Your task to perform on an android device: open chrome privacy settings Image 0: 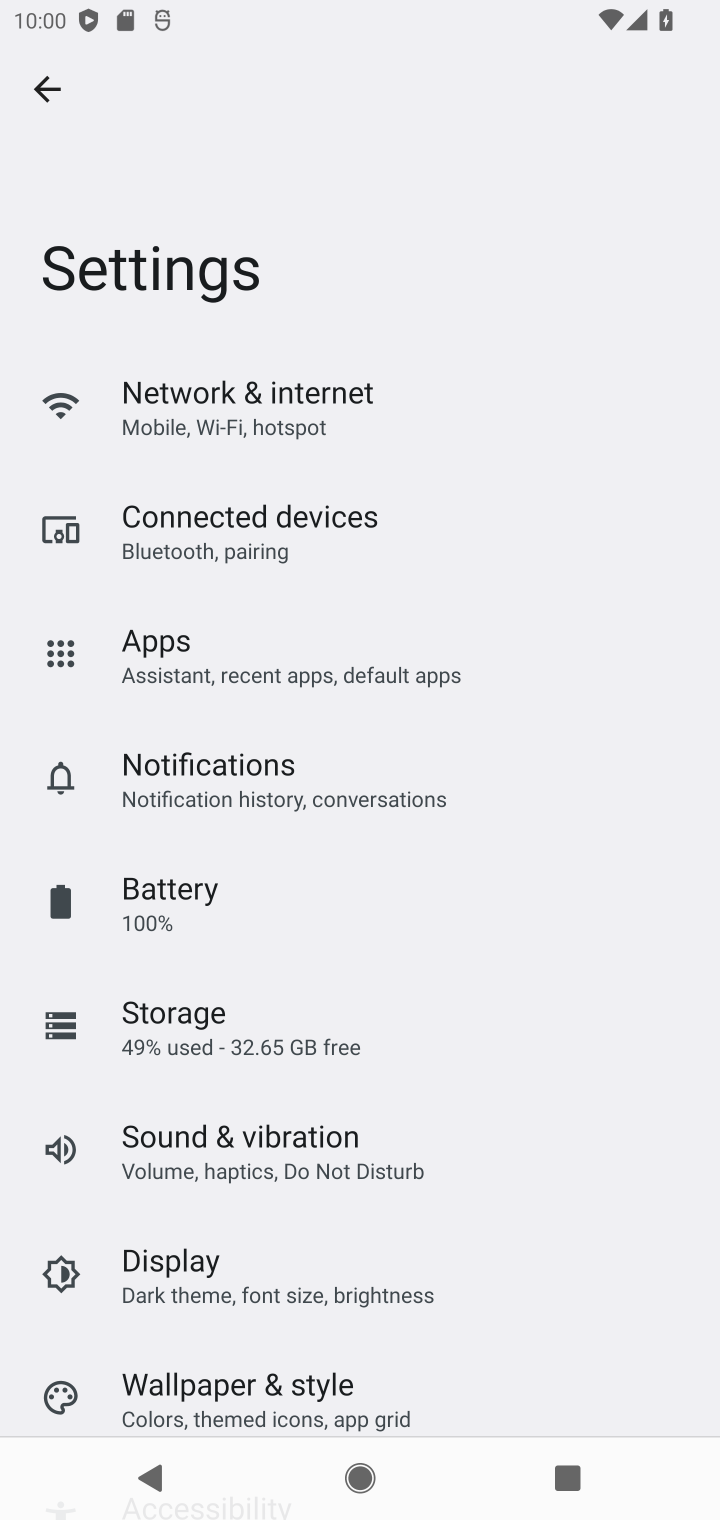
Step 0: press home button
Your task to perform on an android device: open chrome privacy settings Image 1: 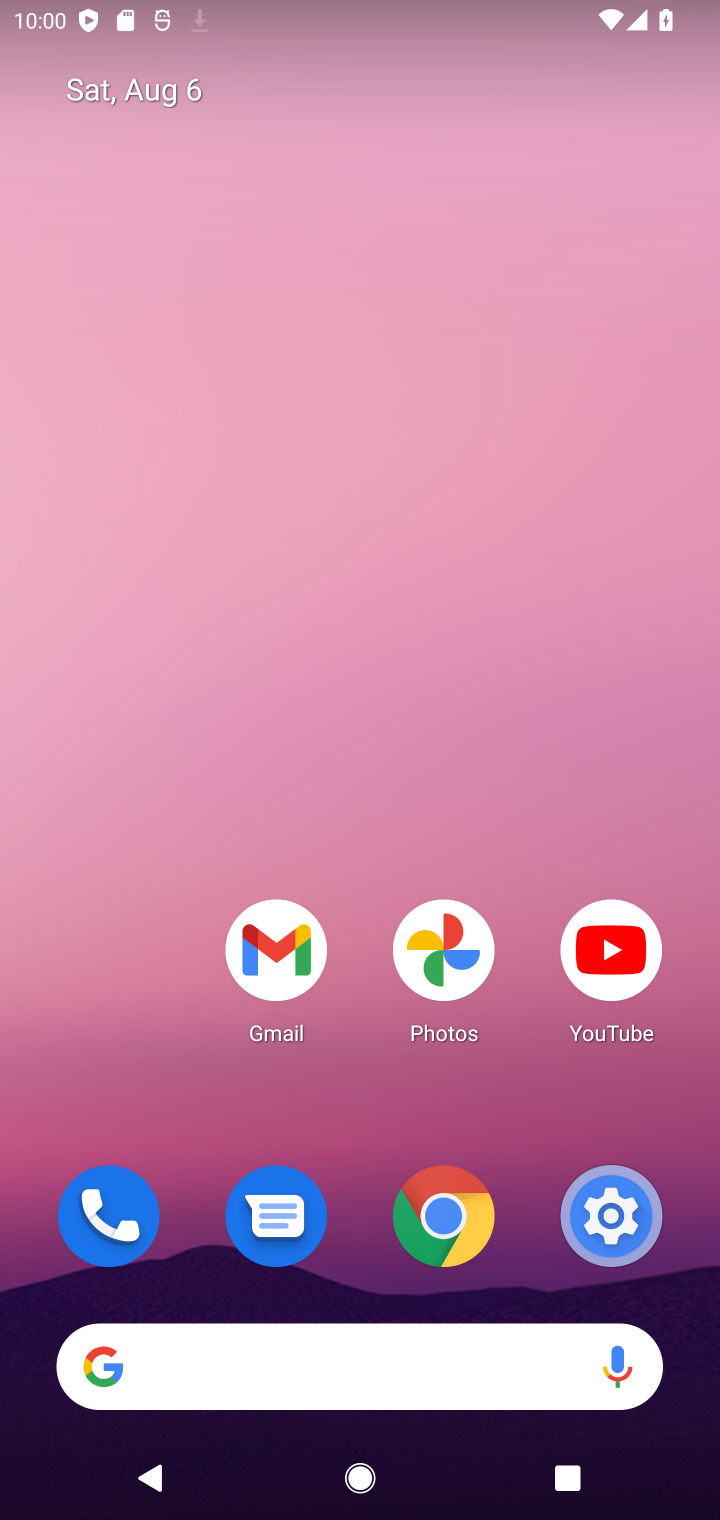
Step 1: click (418, 1257)
Your task to perform on an android device: open chrome privacy settings Image 2: 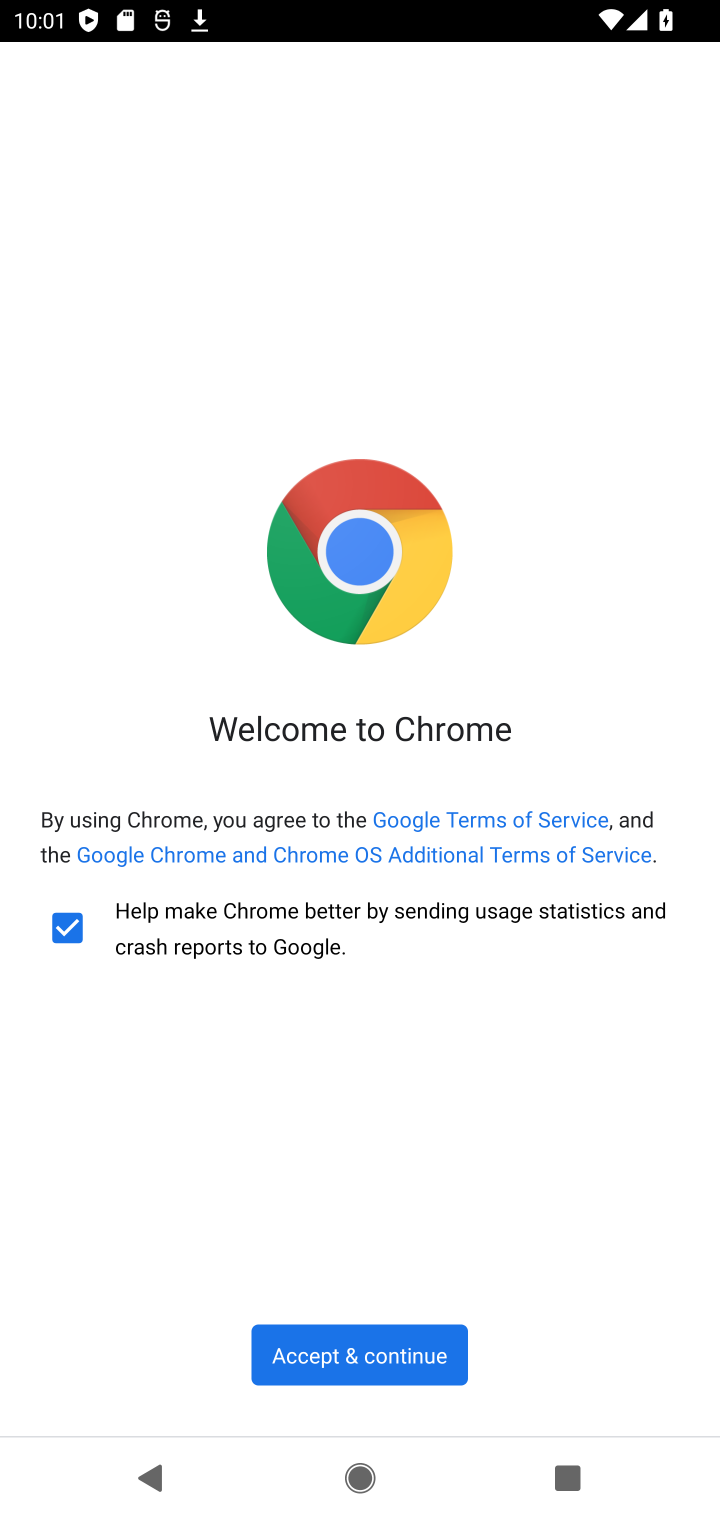
Step 2: click (353, 1351)
Your task to perform on an android device: open chrome privacy settings Image 3: 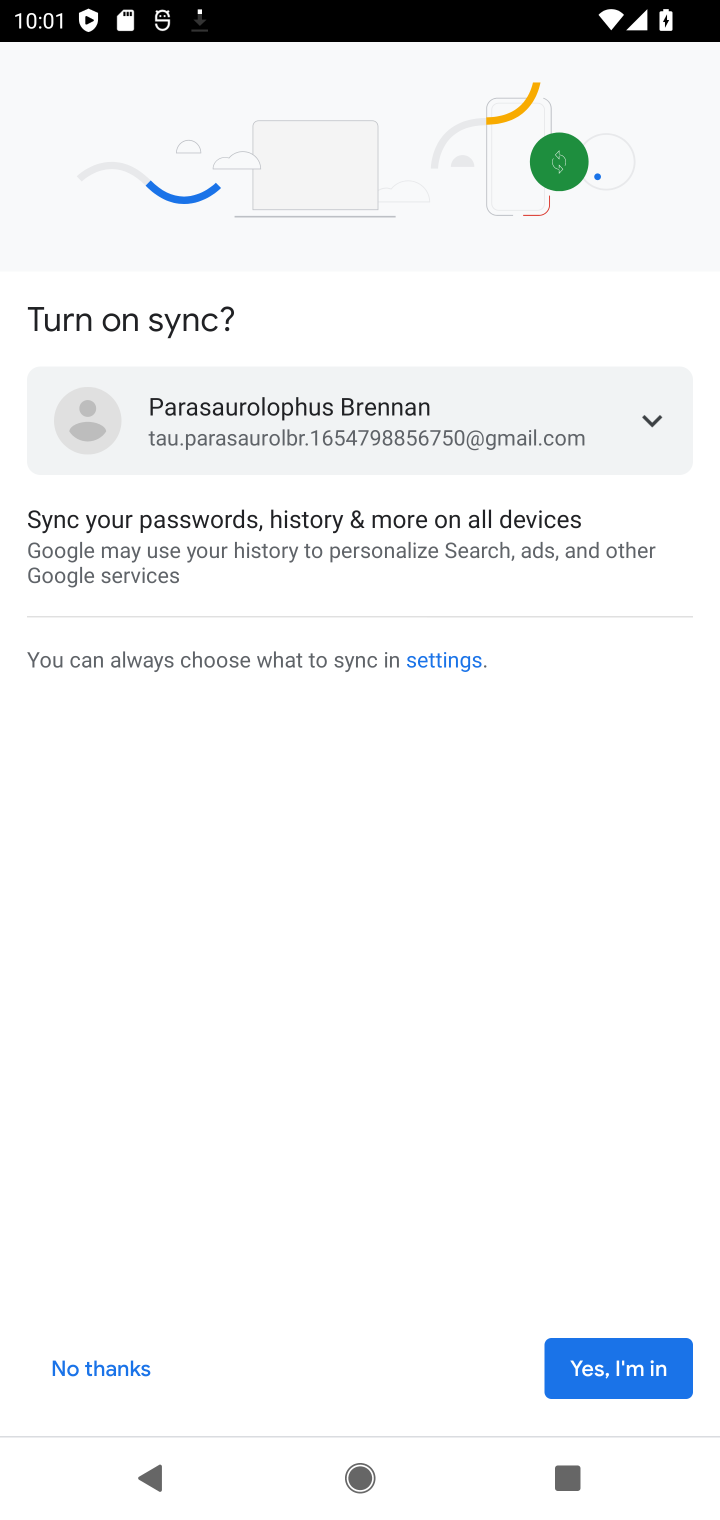
Step 3: click (596, 1373)
Your task to perform on an android device: open chrome privacy settings Image 4: 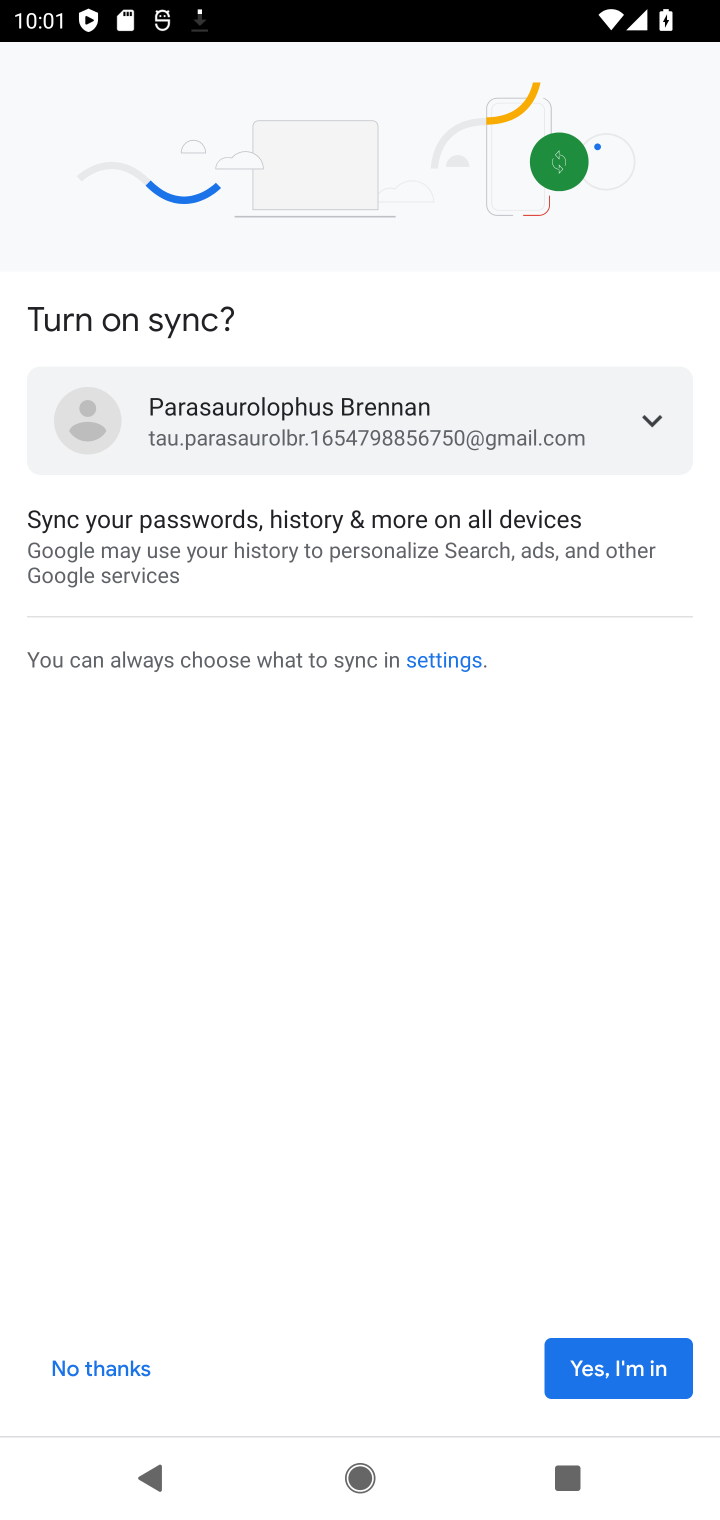
Step 4: click (596, 1373)
Your task to perform on an android device: open chrome privacy settings Image 5: 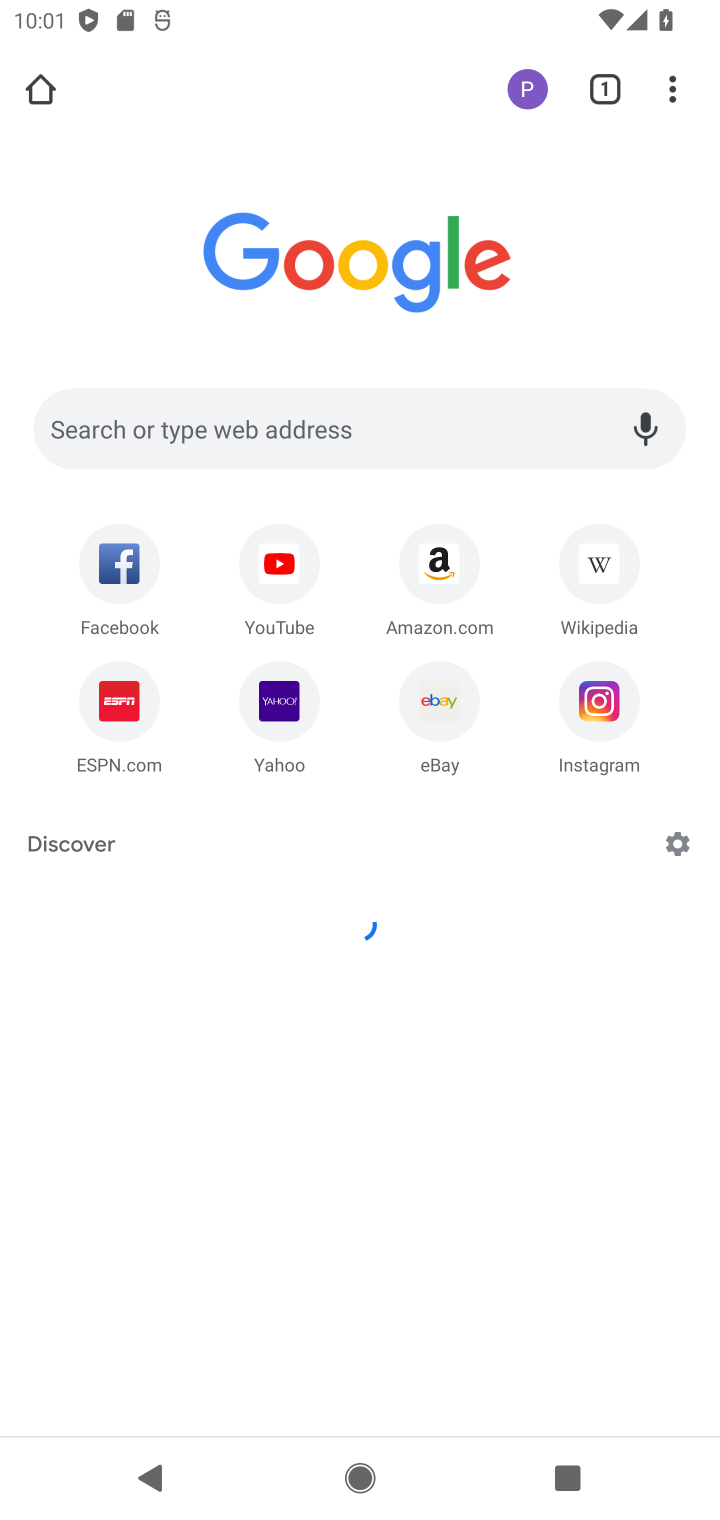
Step 5: click (658, 96)
Your task to perform on an android device: open chrome privacy settings Image 6: 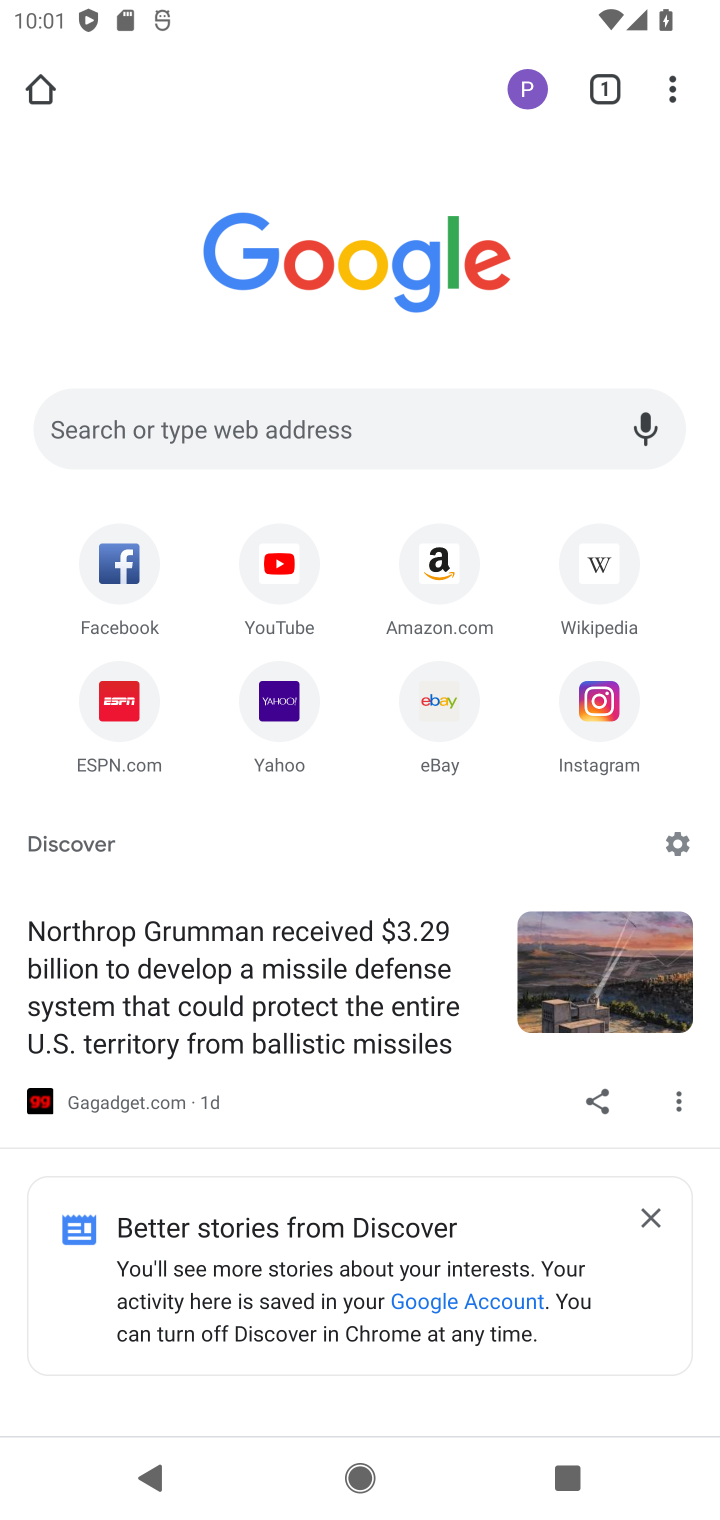
Step 6: click (673, 87)
Your task to perform on an android device: open chrome privacy settings Image 7: 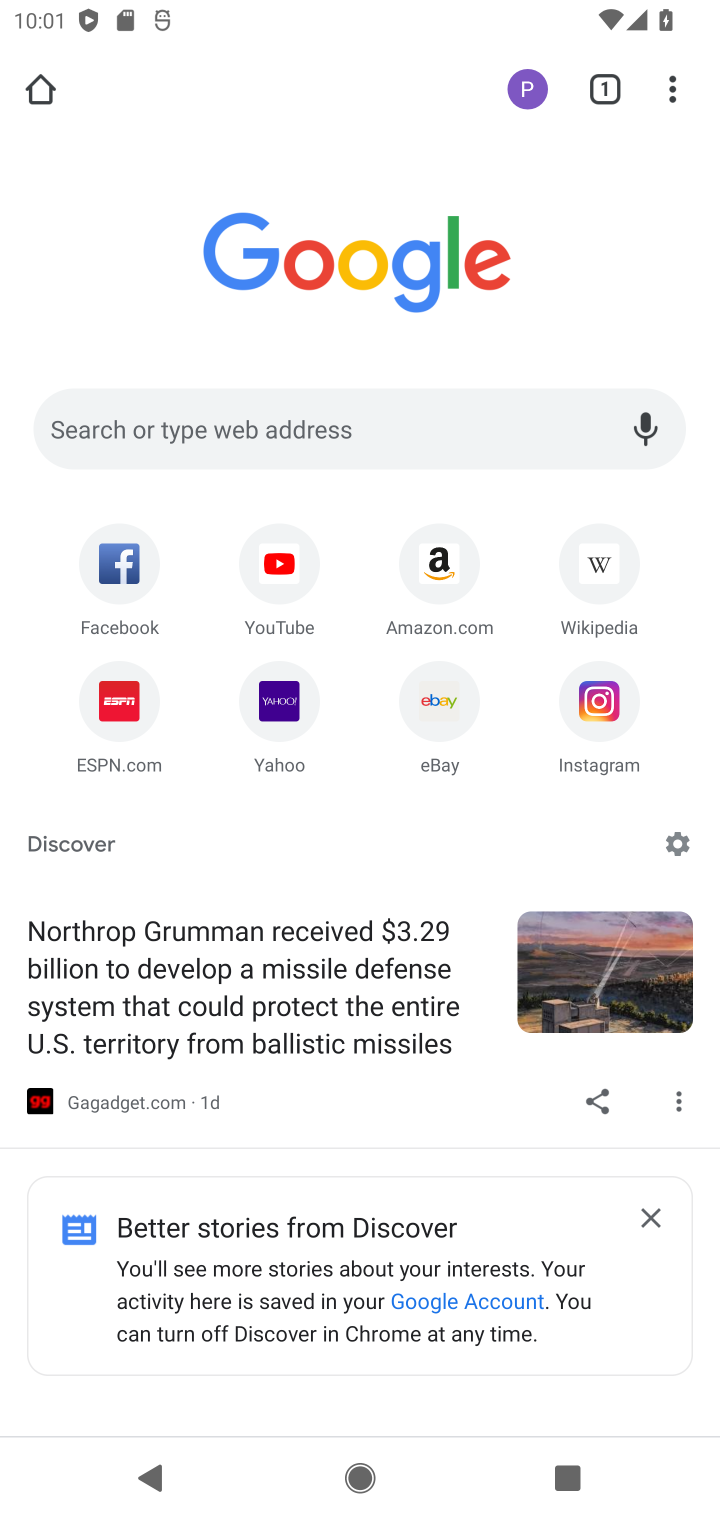
Step 7: click (657, 90)
Your task to perform on an android device: open chrome privacy settings Image 8: 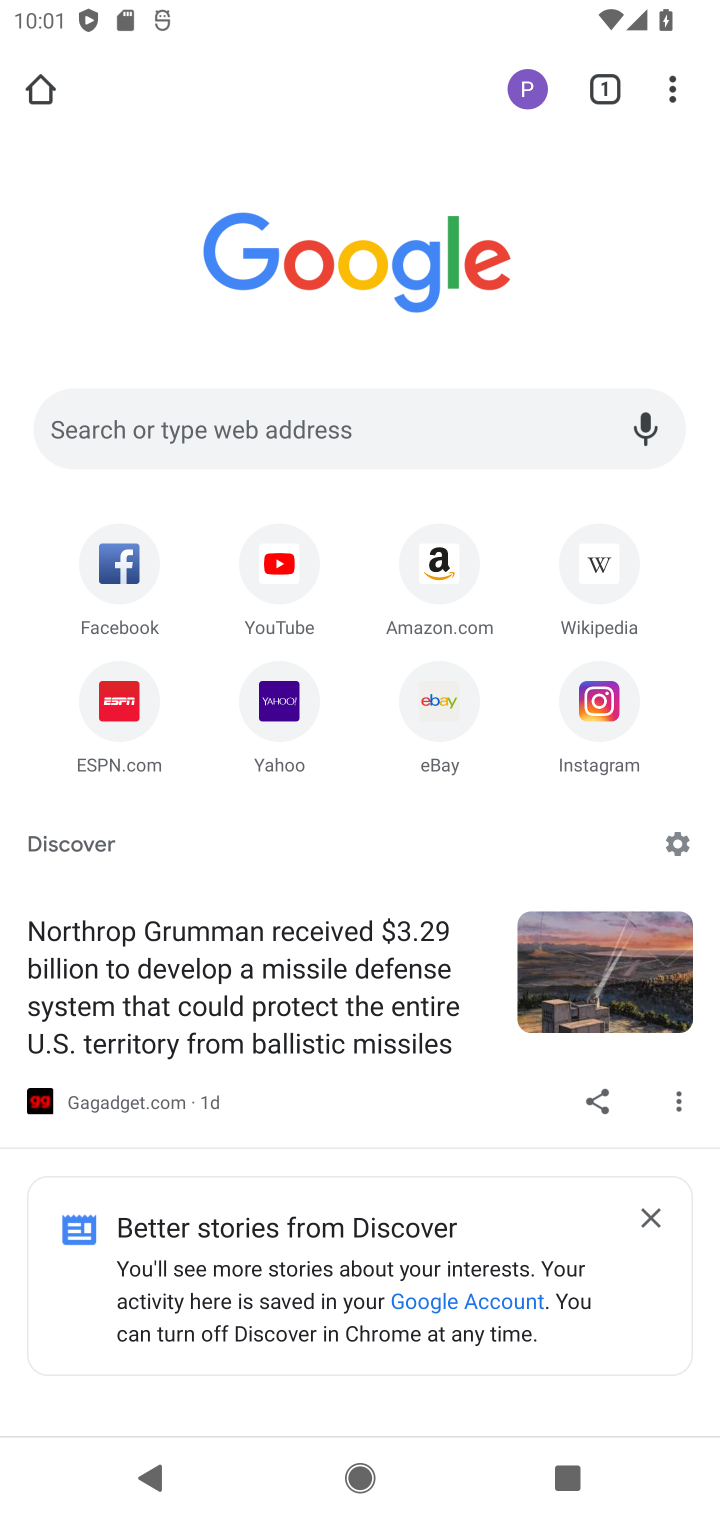
Step 8: click (672, 92)
Your task to perform on an android device: open chrome privacy settings Image 9: 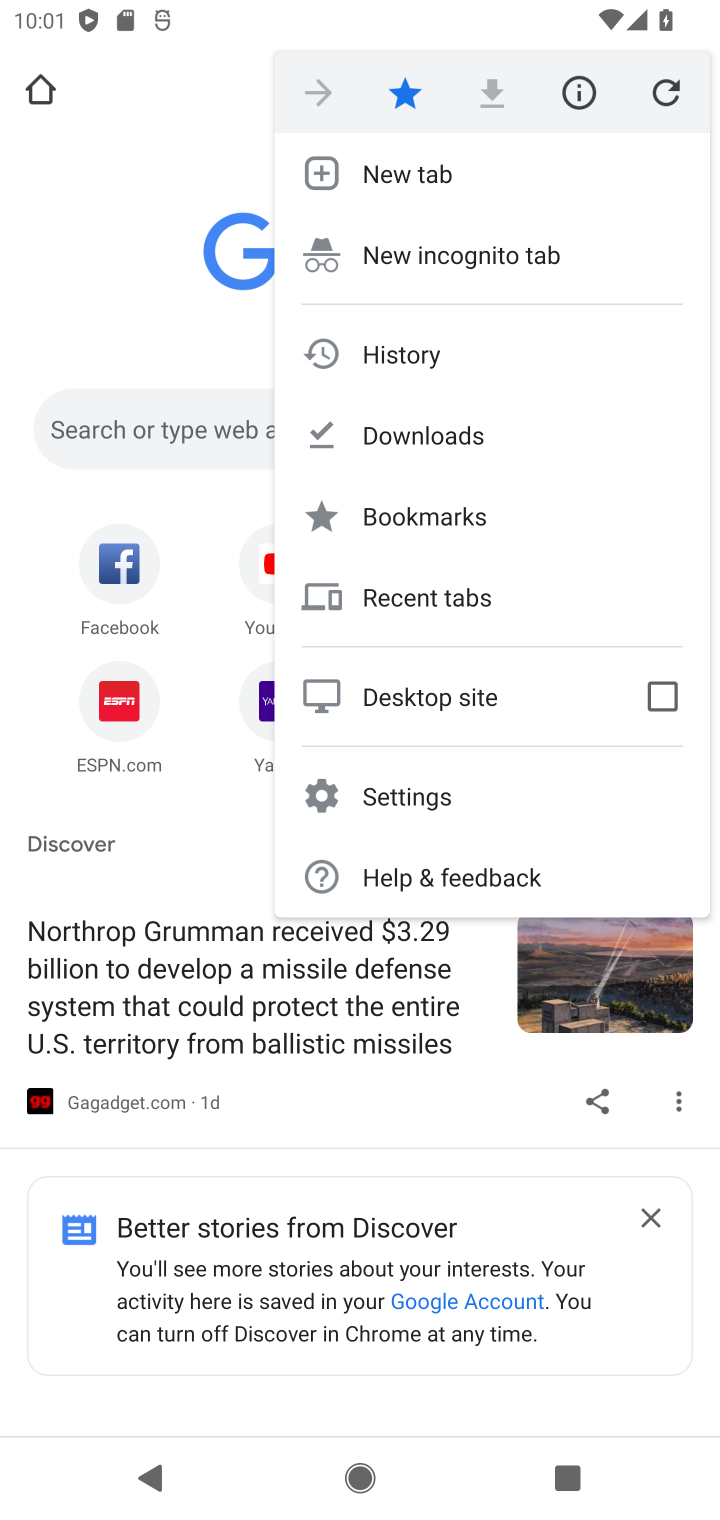
Step 9: click (462, 804)
Your task to perform on an android device: open chrome privacy settings Image 10: 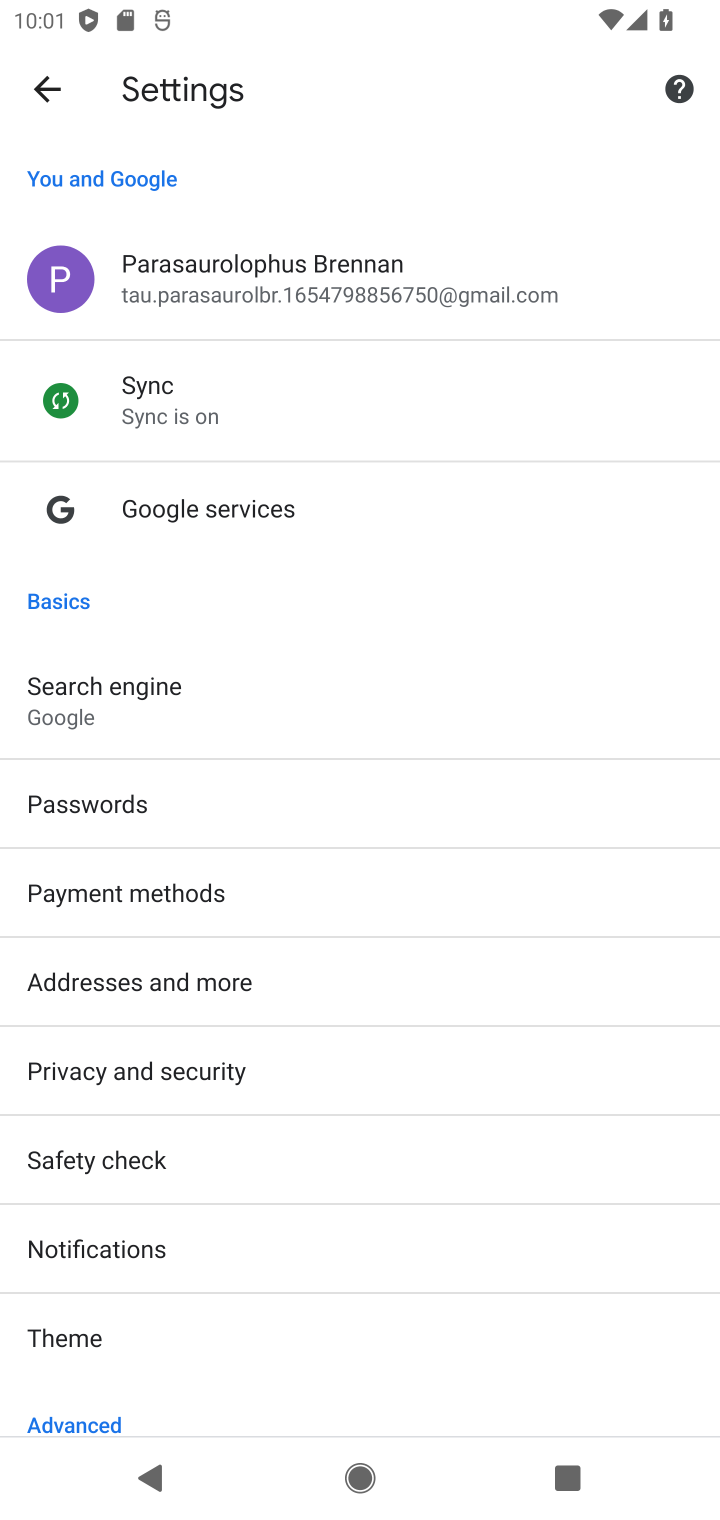
Step 10: click (131, 1050)
Your task to perform on an android device: open chrome privacy settings Image 11: 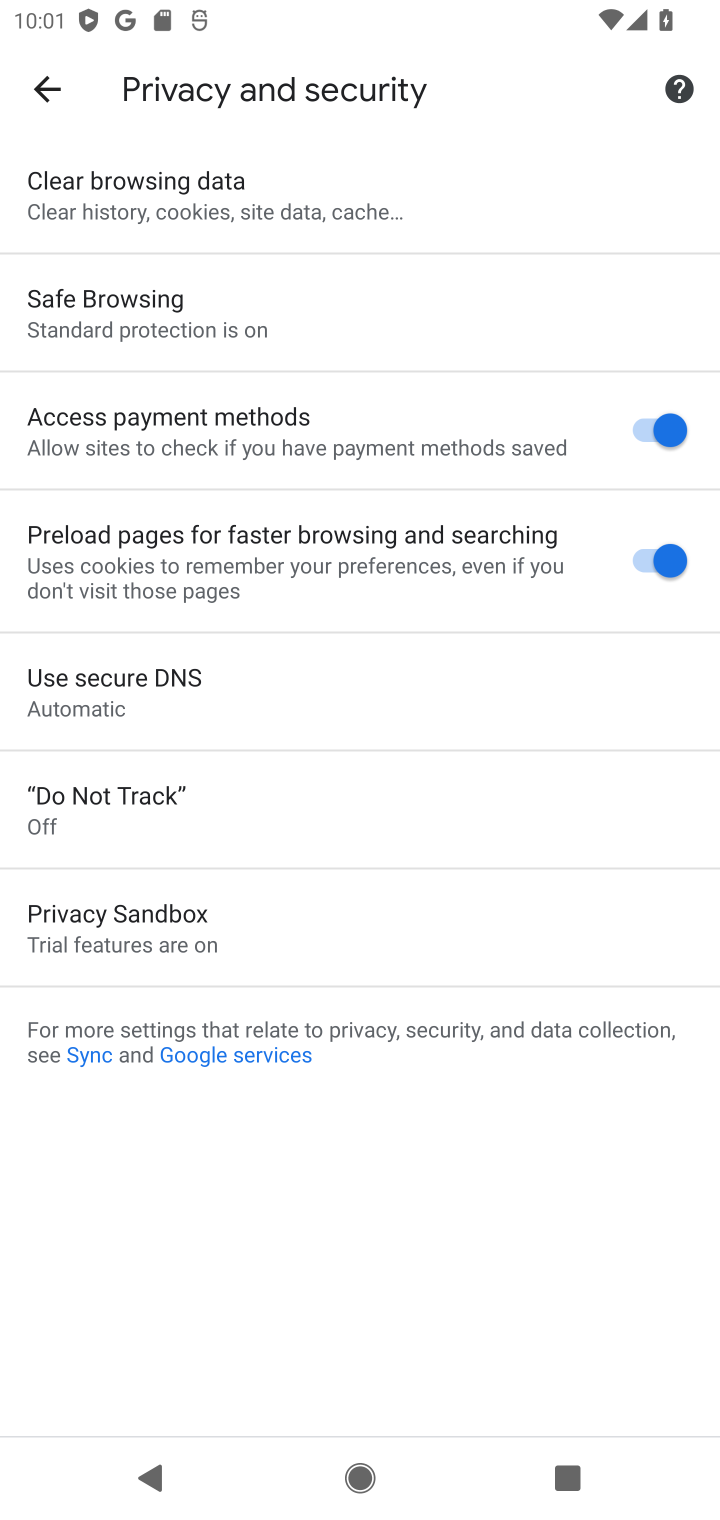
Step 11: task complete